Your task to perform on an android device: all mails in gmail Image 0: 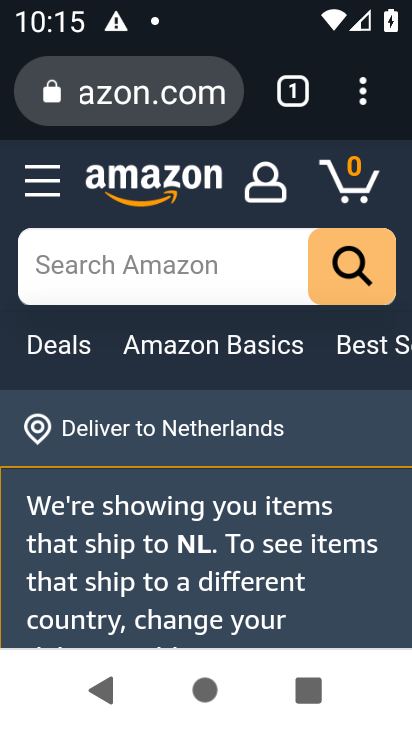
Step 0: press home button
Your task to perform on an android device: all mails in gmail Image 1: 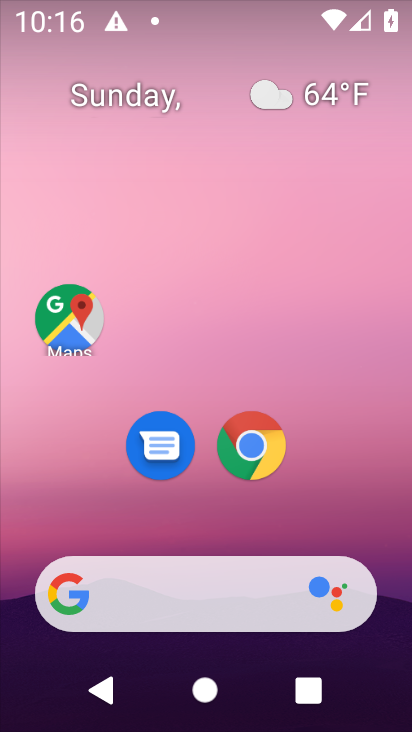
Step 1: drag from (200, 569) to (229, 206)
Your task to perform on an android device: all mails in gmail Image 2: 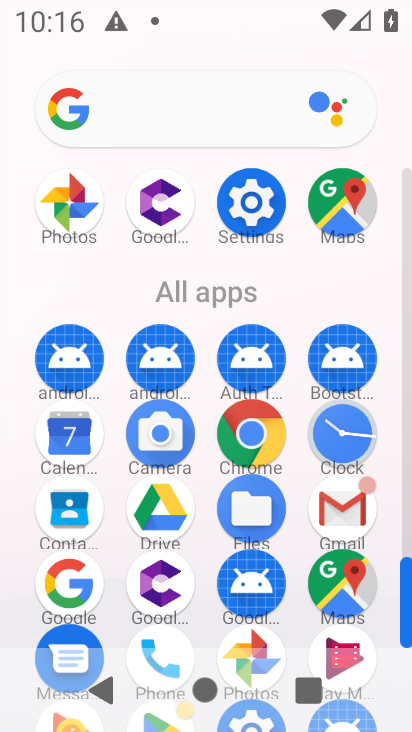
Step 2: click (330, 521)
Your task to perform on an android device: all mails in gmail Image 3: 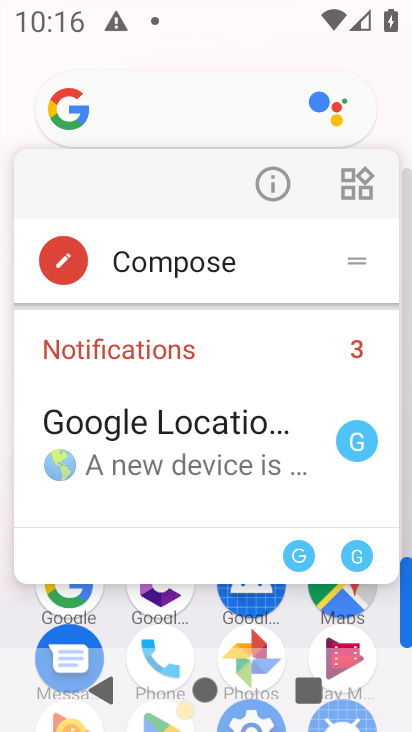
Step 3: press back button
Your task to perform on an android device: all mails in gmail Image 4: 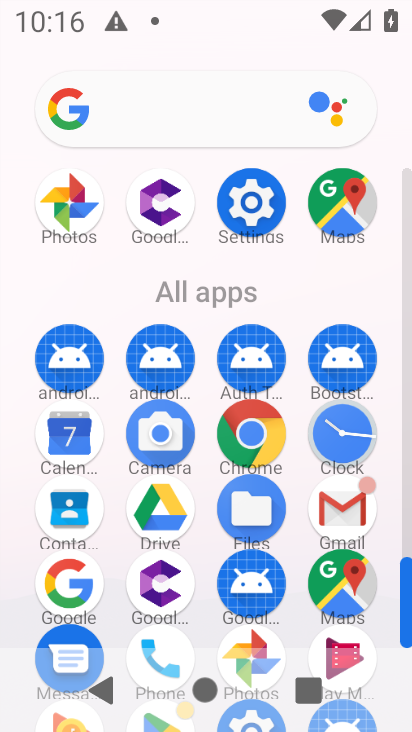
Step 4: click (346, 501)
Your task to perform on an android device: all mails in gmail Image 5: 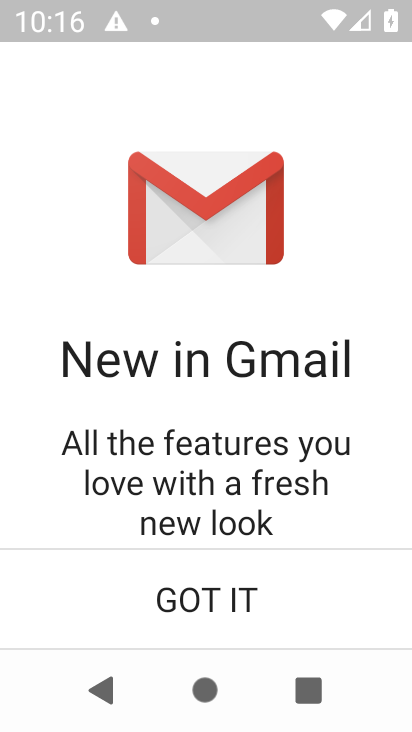
Step 5: click (220, 615)
Your task to perform on an android device: all mails in gmail Image 6: 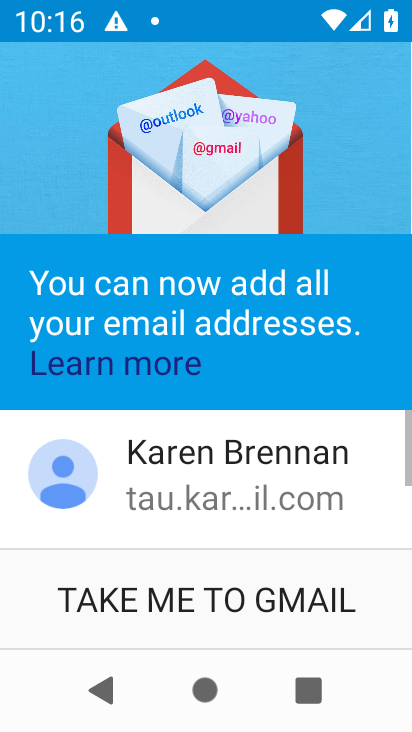
Step 6: click (220, 615)
Your task to perform on an android device: all mails in gmail Image 7: 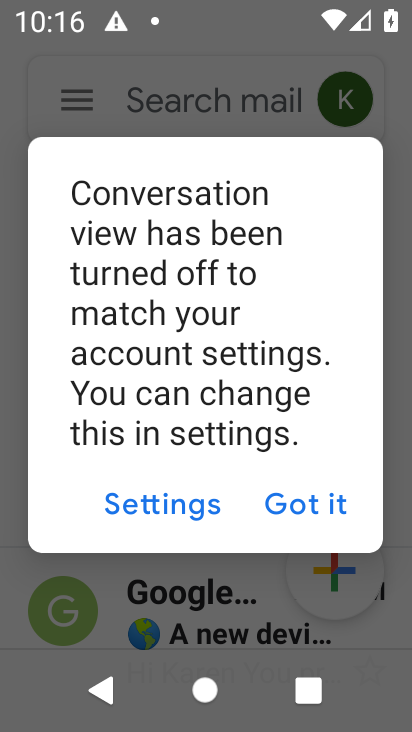
Step 7: click (298, 514)
Your task to perform on an android device: all mails in gmail Image 8: 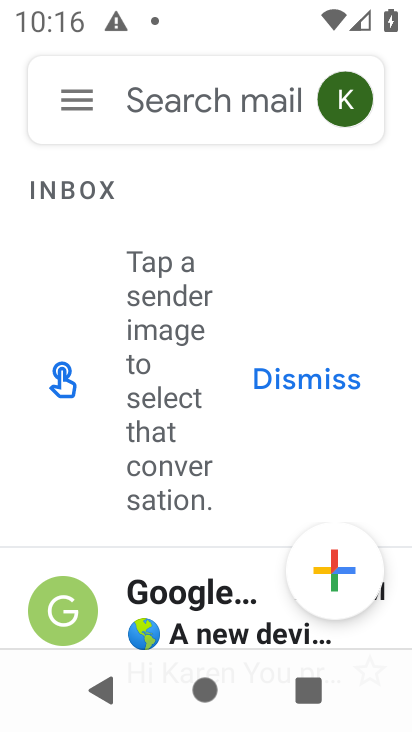
Step 8: click (78, 114)
Your task to perform on an android device: all mails in gmail Image 9: 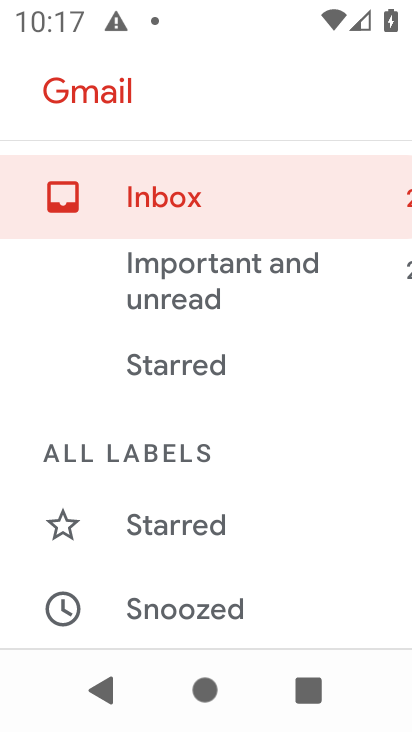
Step 9: drag from (235, 523) to (174, 243)
Your task to perform on an android device: all mails in gmail Image 10: 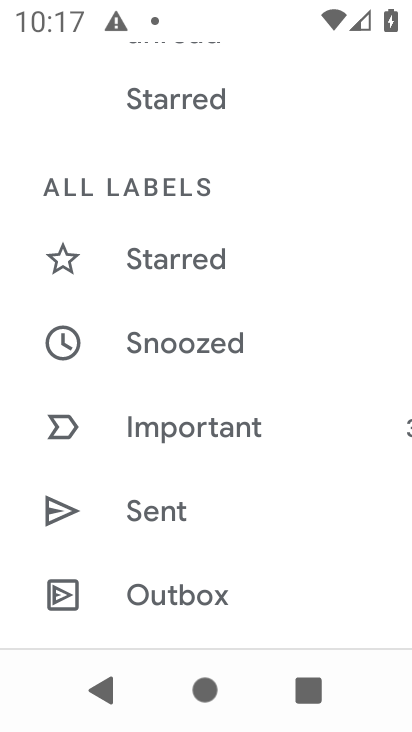
Step 10: drag from (212, 587) to (205, 176)
Your task to perform on an android device: all mails in gmail Image 11: 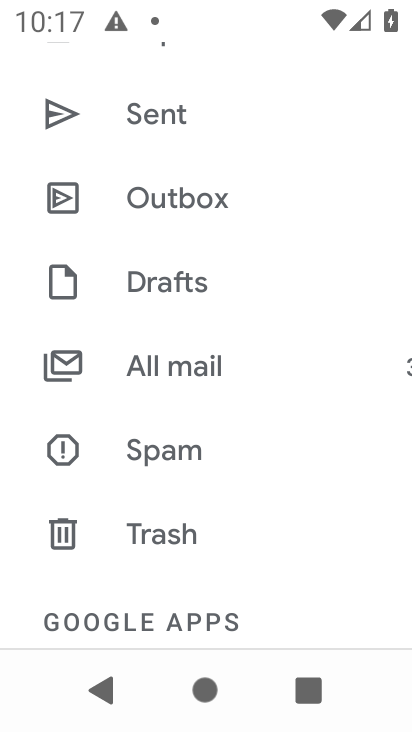
Step 11: click (140, 367)
Your task to perform on an android device: all mails in gmail Image 12: 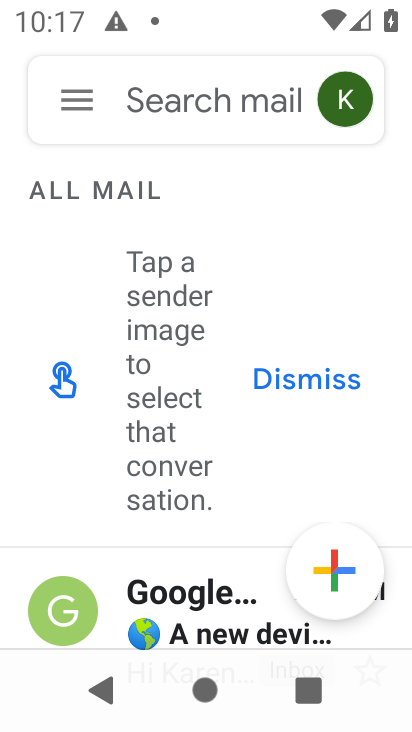
Step 12: task complete